Your task to perform on an android device: Go to Reddit.com Image 0: 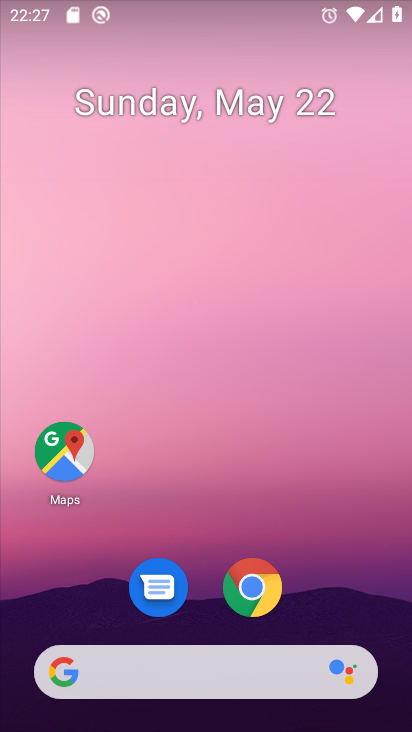
Step 0: click (232, 666)
Your task to perform on an android device: Go to Reddit.com Image 1: 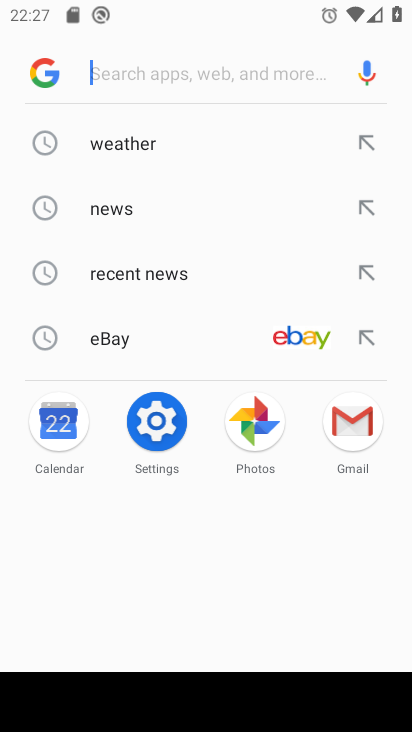
Step 1: type "reddit.com"
Your task to perform on an android device: Go to Reddit.com Image 2: 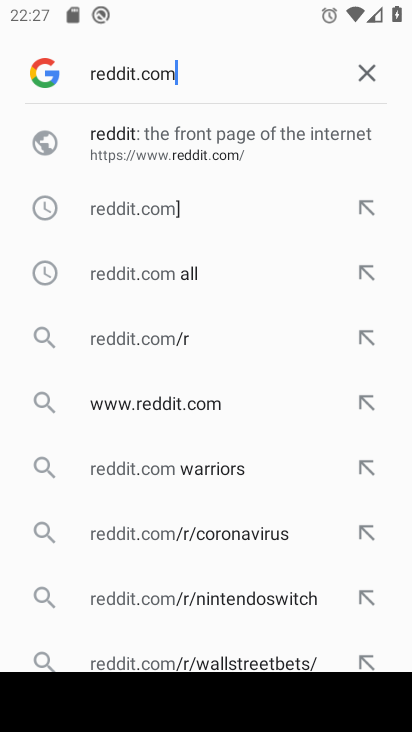
Step 2: click (134, 148)
Your task to perform on an android device: Go to Reddit.com Image 3: 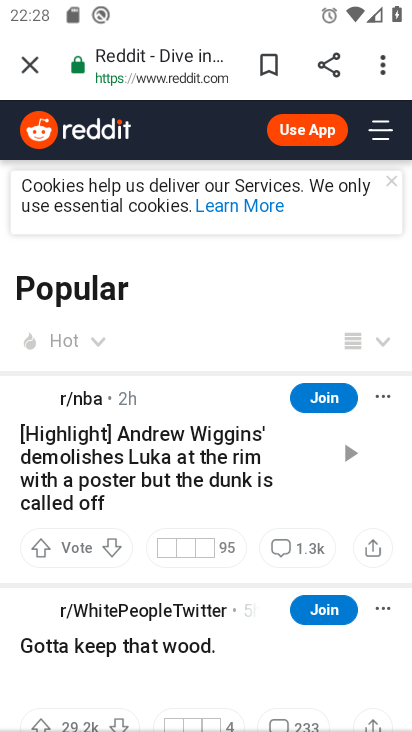
Step 3: task complete